Your task to perform on an android device: change the clock style Image 0: 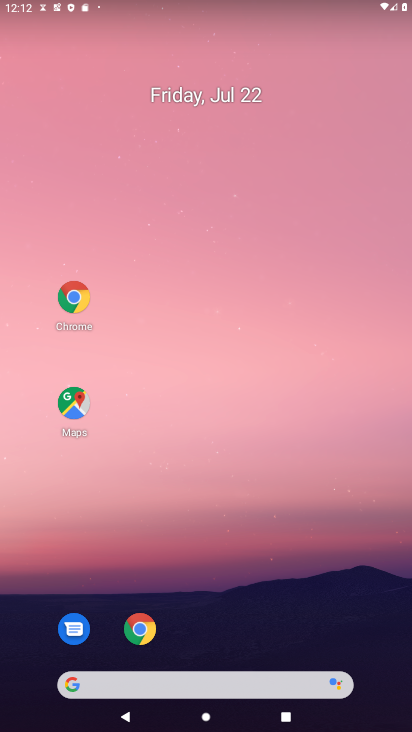
Step 0: drag from (228, 543) to (233, 84)
Your task to perform on an android device: change the clock style Image 1: 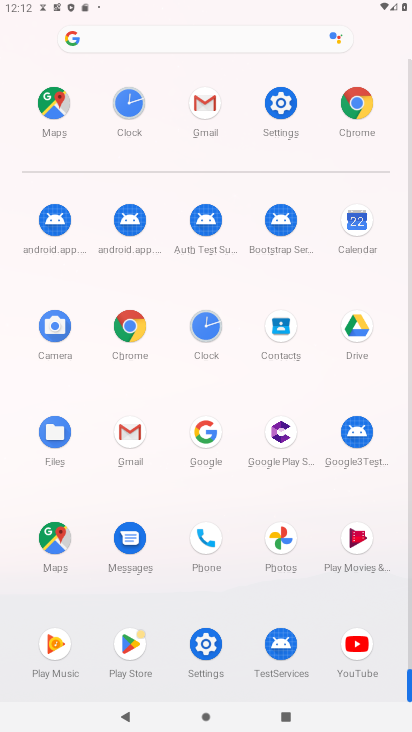
Step 1: click (204, 326)
Your task to perform on an android device: change the clock style Image 2: 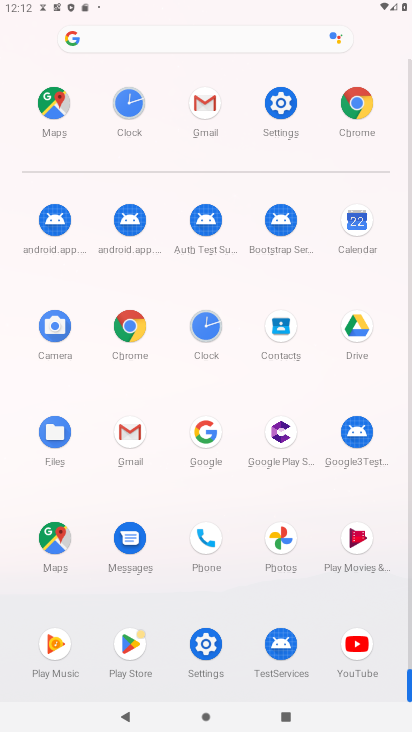
Step 2: click (204, 326)
Your task to perform on an android device: change the clock style Image 3: 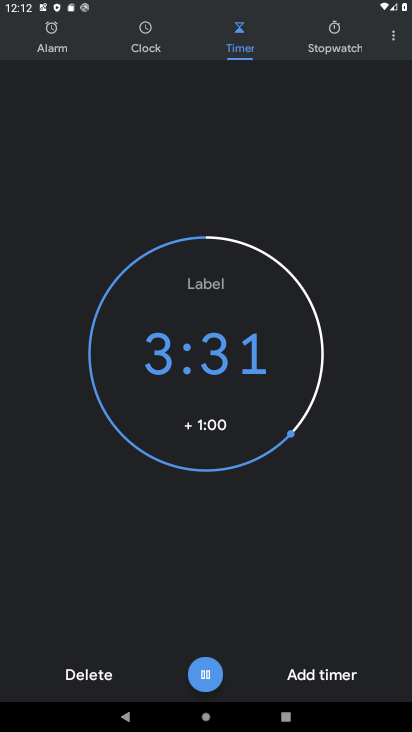
Step 3: click (201, 675)
Your task to perform on an android device: change the clock style Image 4: 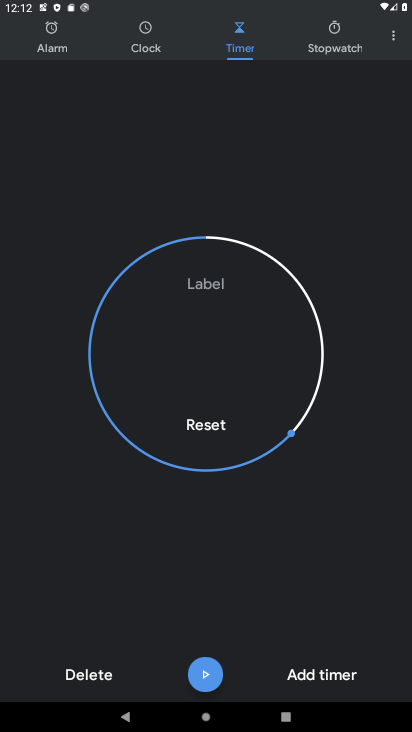
Step 4: click (393, 31)
Your task to perform on an android device: change the clock style Image 5: 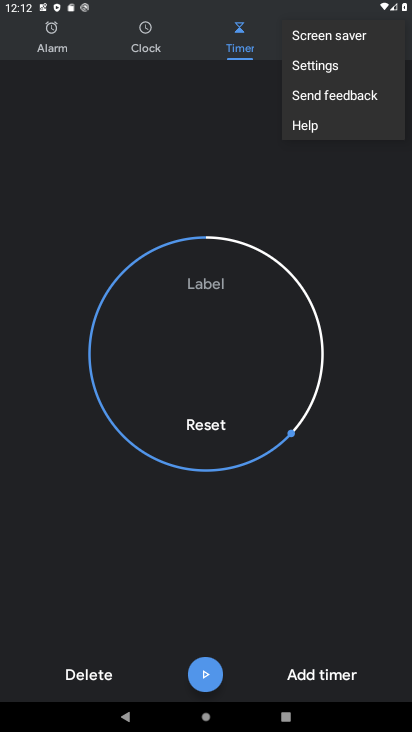
Step 5: click (295, 65)
Your task to perform on an android device: change the clock style Image 6: 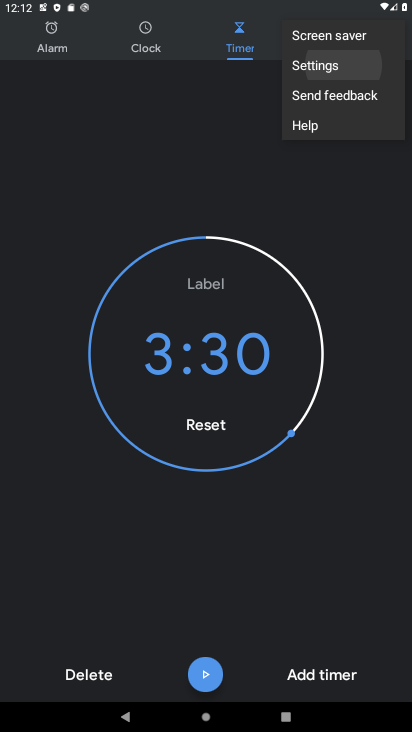
Step 6: click (295, 64)
Your task to perform on an android device: change the clock style Image 7: 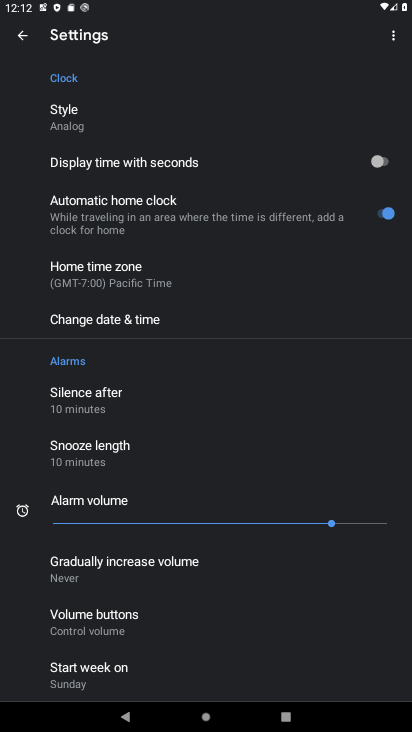
Step 7: click (82, 125)
Your task to perform on an android device: change the clock style Image 8: 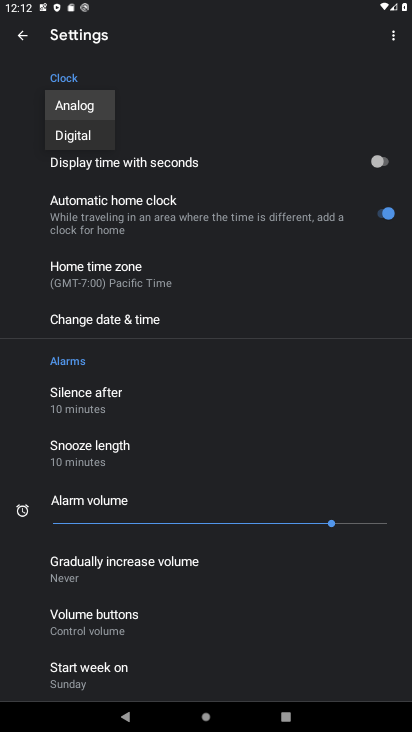
Step 8: click (77, 142)
Your task to perform on an android device: change the clock style Image 9: 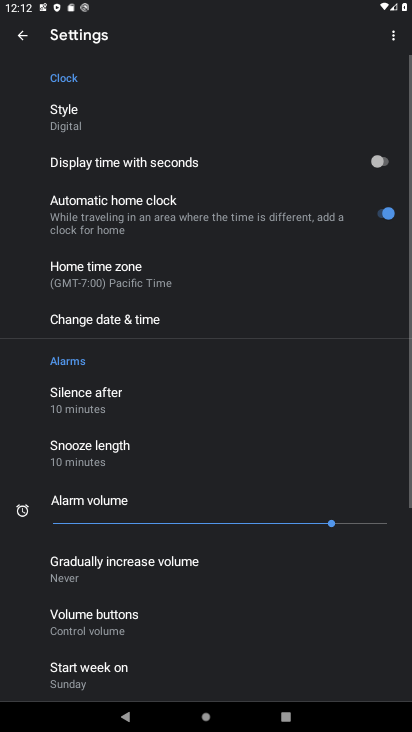
Step 9: task complete